Your task to perform on an android device: turn smart compose on in the gmail app Image 0: 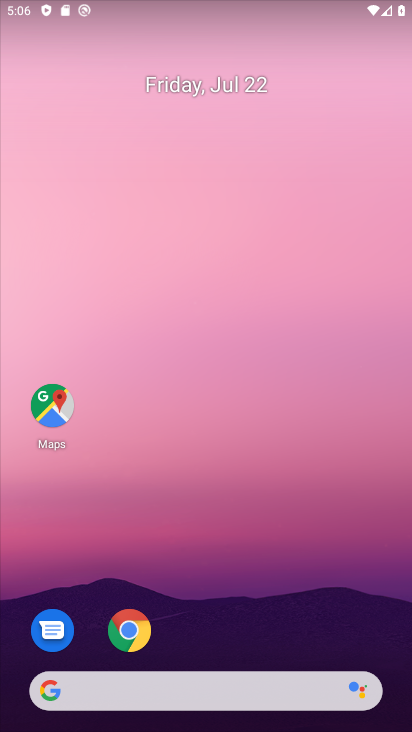
Step 0: drag from (203, 639) to (277, 194)
Your task to perform on an android device: turn smart compose on in the gmail app Image 1: 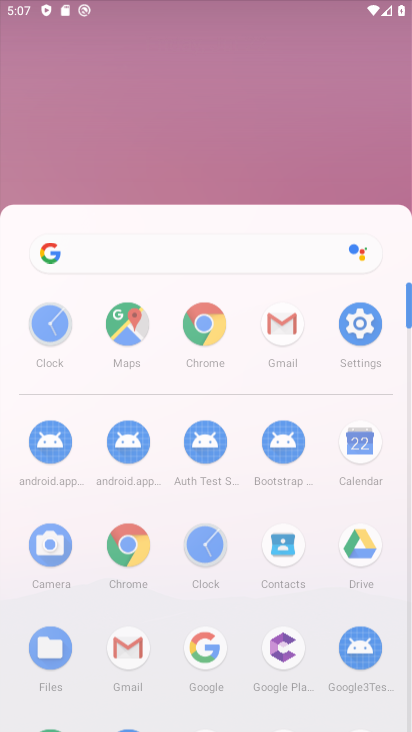
Step 1: click (277, 194)
Your task to perform on an android device: turn smart compose on in the gmail app Image 2: 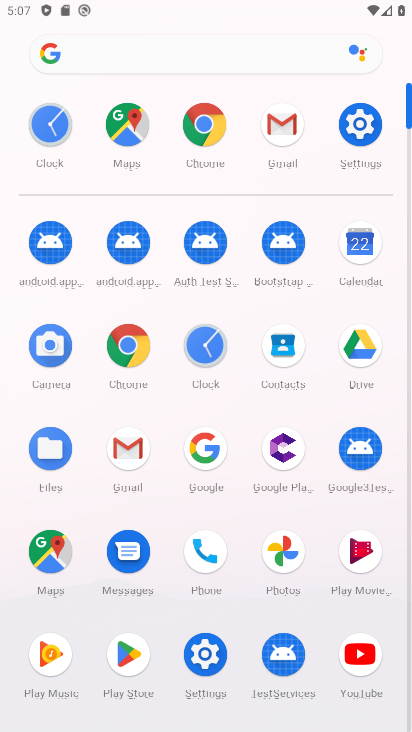
Step 2: click (278, 193)
Your task to perform on an android device: turn smart compose on in the gmail app Image 3: 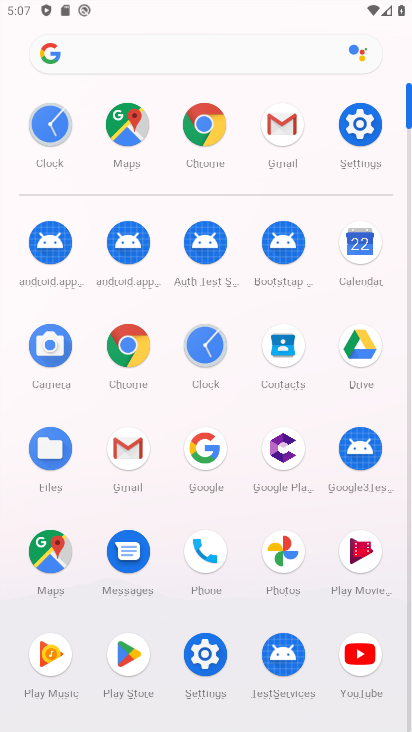
Step 3: click (278, 162)
Your task to perform on an android device: turn smart compose on in the gmail app Image 4: 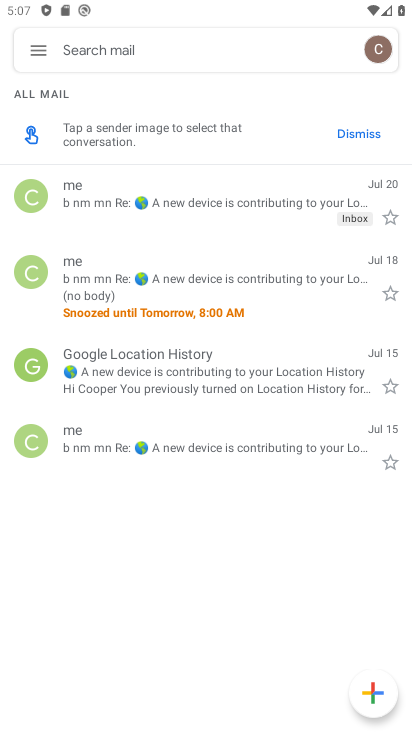
Step 4: click (42, 48)
Your task to perform on an android device: turn smart compose on in the gmail app Image 5: 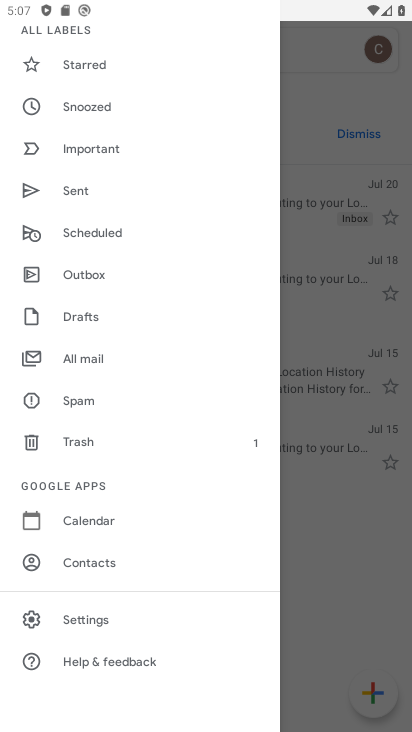
Step 5: click (86, 624)
Your task to perform on an android device: turn smart compose on in the gmail app Image 6: 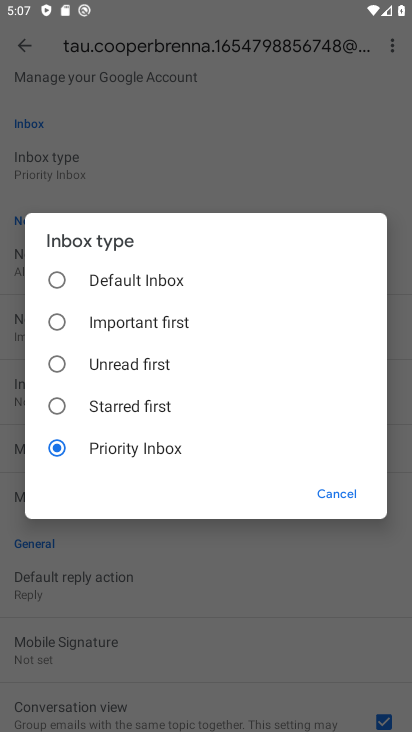
Step 6: click (351, 490)
Your task to perform on an android device: turn smart compose on in the gmail app Image 7: 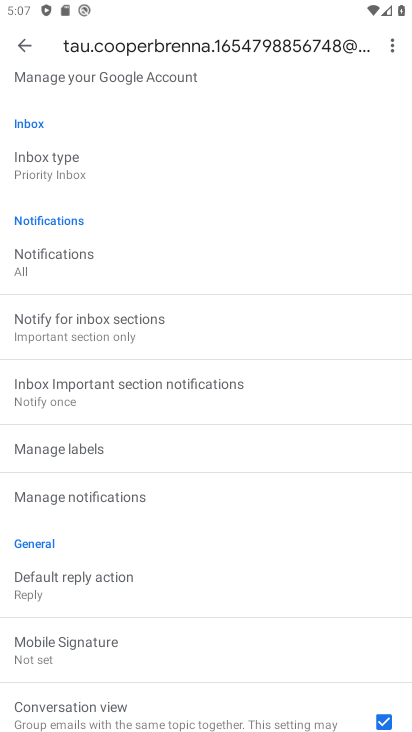
Step 7: click (20, 41)
Your task to perform on an android device: turn smart compose on in the gmail app Image 8: 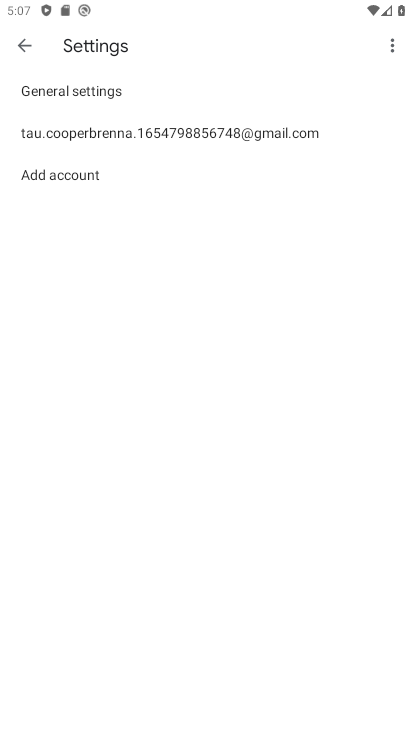
Step 8: click (20, 41)
Your task to perform on an android device: turn smart compose on in the gmail app Image 9: 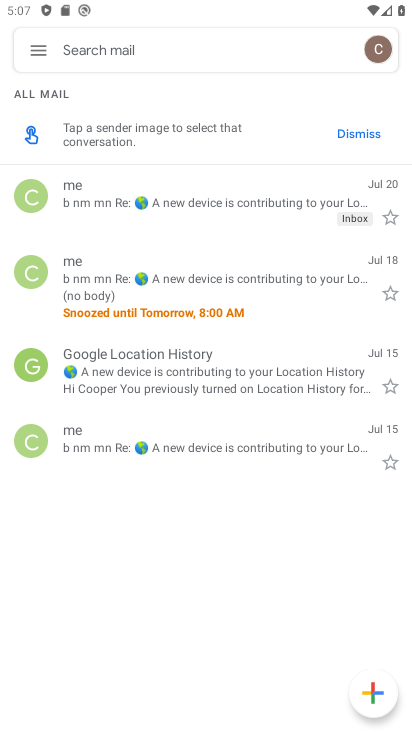
Step 9: click (62, 56)
Your task to perform on an android device: turn smart compose on in the gmail app Image 10: 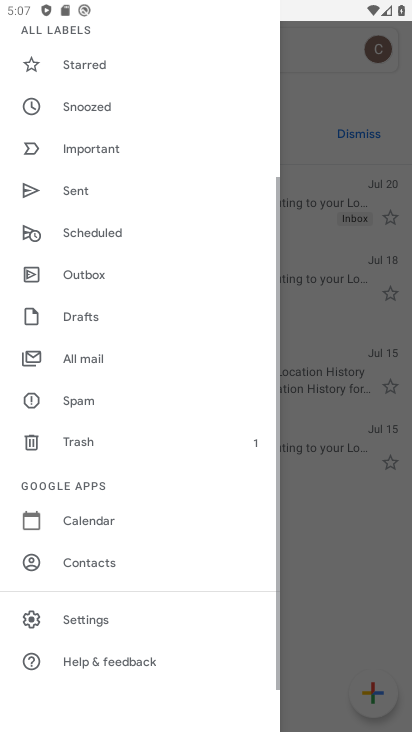
Step 10: click (62, 56)
Your task to perform on an android device: turn smart compose on in the gmail app Image 11: 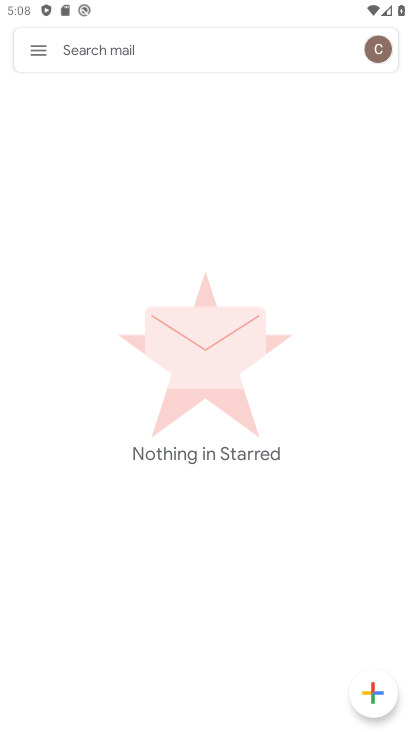
Step 11: press back button
Your task to perform on an android device: turn smart compose on in the gmail app Image 12: 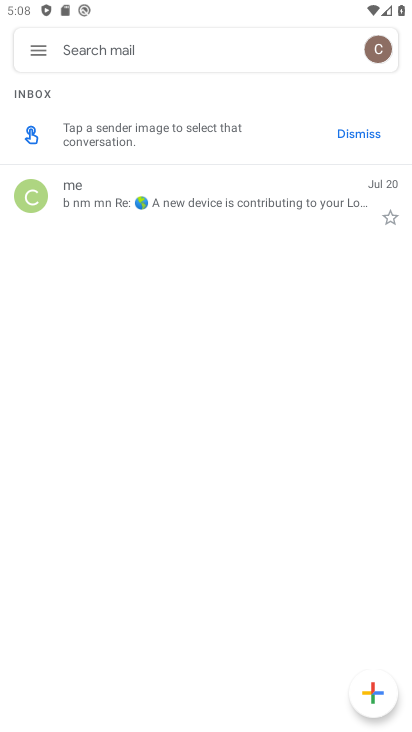
Step 12: click (37, 54)
Your task to perform on an android device: turn smart compose on in the gmail app Image 13: 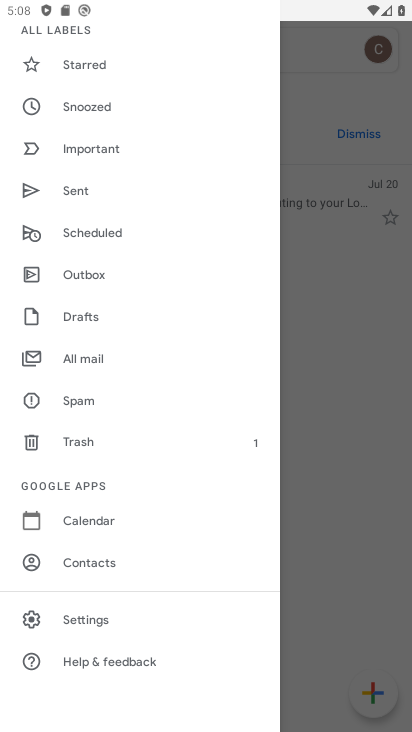
Step 13: click (105, 612)
Your task to perform on an android device: turn smart compose on in the gmail app Image 14: 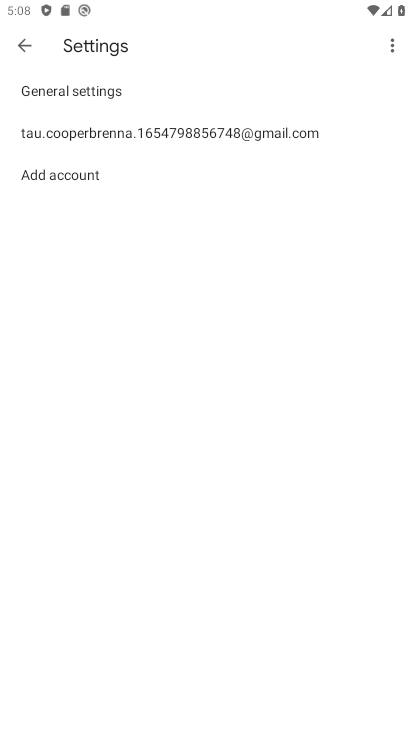
Step 14: click (188, 130)
Your task to perform on an android device: turn smart compose on in the gmail app Image 15: 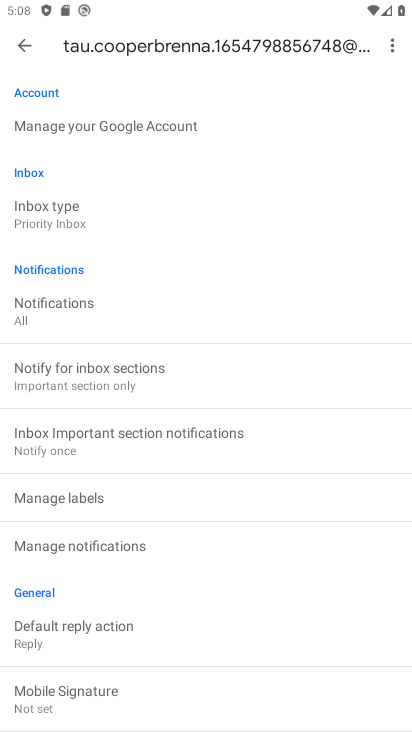
Step 15: task complete